Your task to perform on an android device: Open the Play Movies app and select the watchlist tab. Image 0: 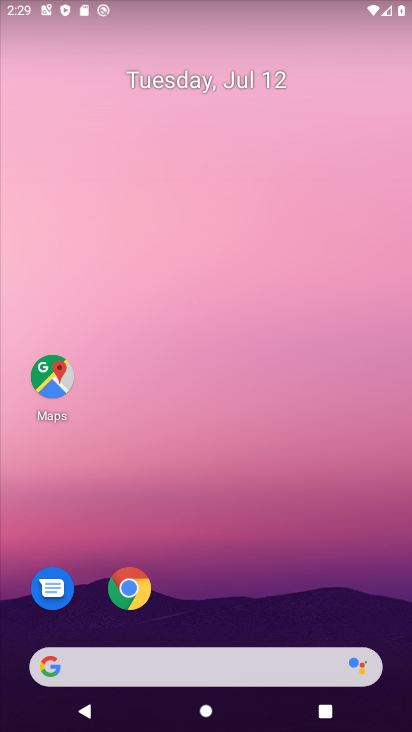
Step 0: drag from (191, 660) to (19, 251)
Your task to perform on an android device: Open the Play Movies app and select the watchlist tab. Image 1: 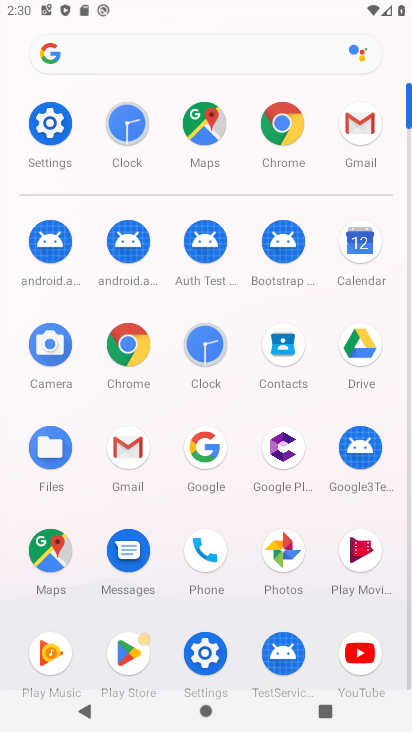
Step 1: click (361, 567)
Your task to perform on an android device: Open the Play Movies app and select the watchlist tab. Image 2: 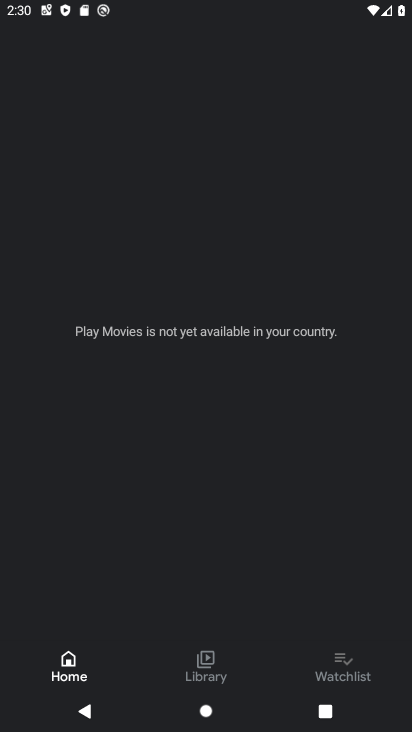
Step 2: click (340, 659)
Your task to perform on an android device: Open the Play Movies app and select the watchlist tab. Image 3: 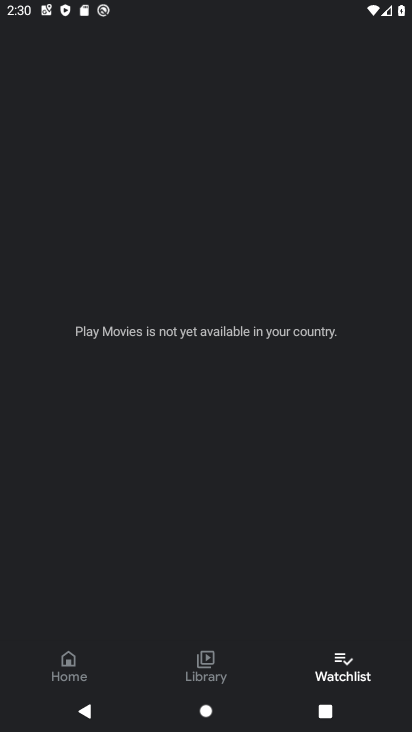
Step 3: task complete